Your task to perform on an android device: see creations saved in the google photos Image 0: 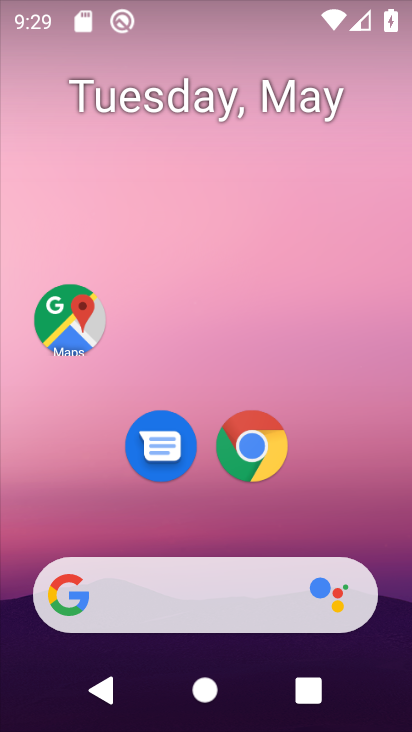
Step 0: drag from (379, 505) to (287, 67)
Your task to perform on an android device: see creations saved in the google photos Image 1: 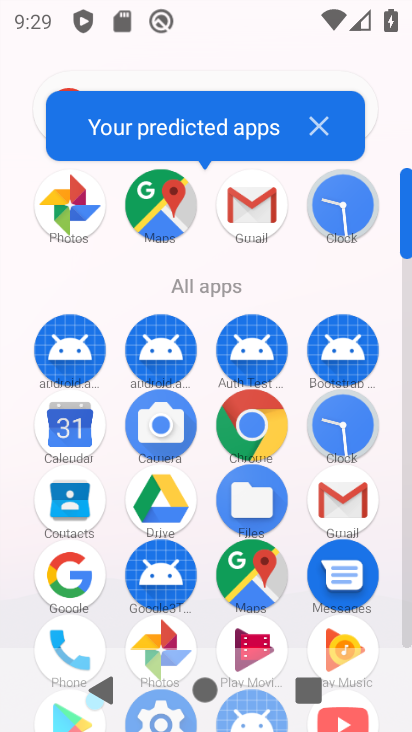
Step 1: click (76, 210)
Your task to perform on an android device: see creations saved in the google photos Image 2: 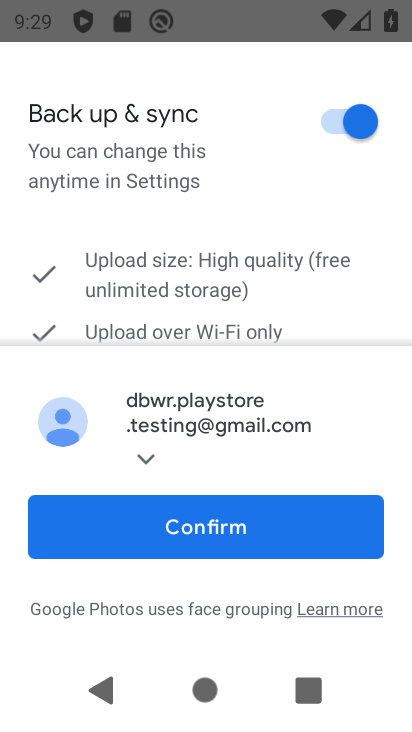
Step 2: click (229, 544)
Your task to perform on an android device: see creations saved in the google photos Image 3: 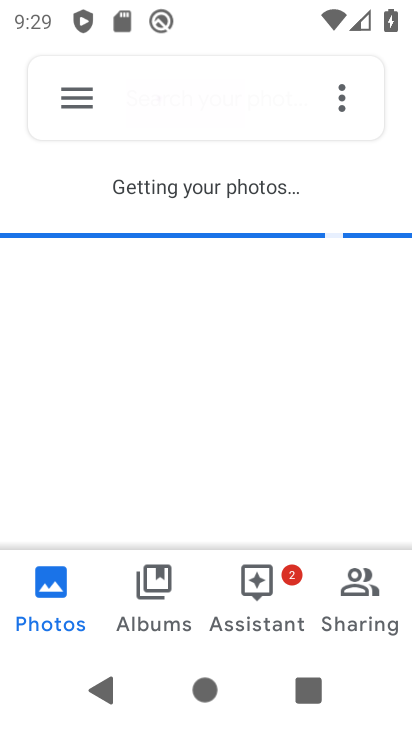
Step 3: click (149, 115)
Your task to perform on an android device: see creations saved in the google photos Image 4: 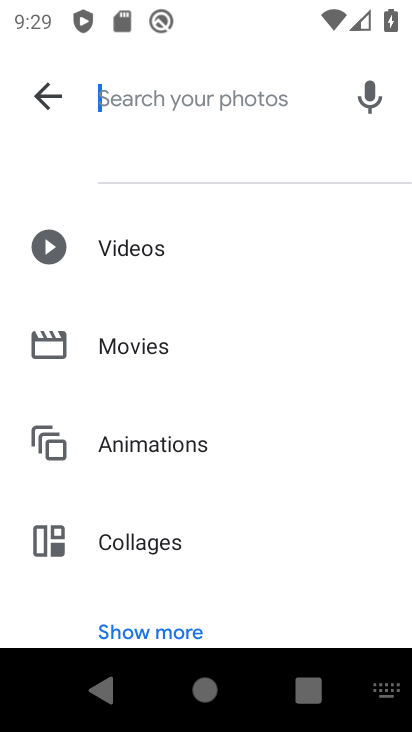
Step 4: click (190, 623)
Your task to perform on an android device: see creations saved in the google photos Image 5: 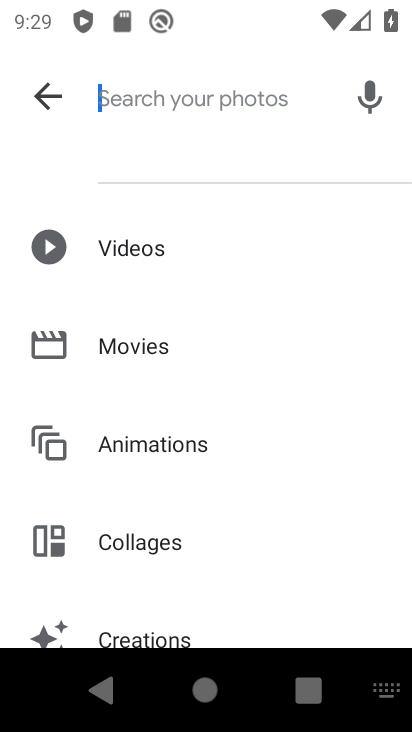
Step 5: drag from (190, 623) to (171, 404)
Your task to perform on an android device: see creations saved in the google photos Image 6: 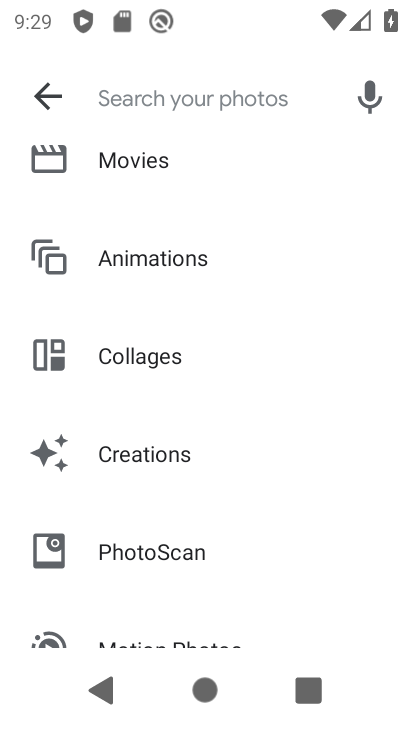
Step 6: click (162, 458)
Your task to perform on an android device: see creations saved in the google photos Image 7: 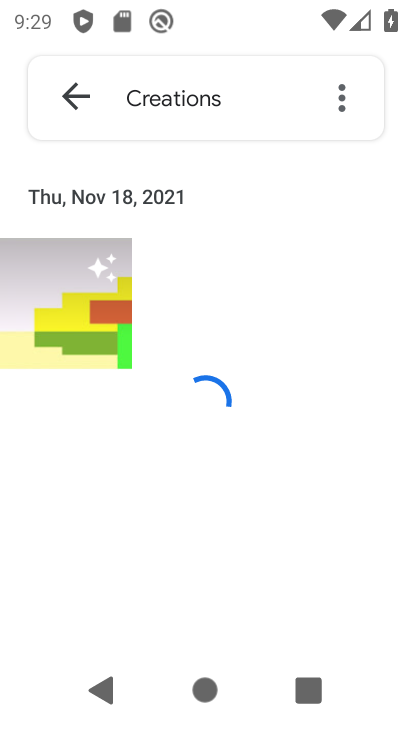
Step 7: task complete